Your task to perform on an android device: Go to Android settings Image 0: 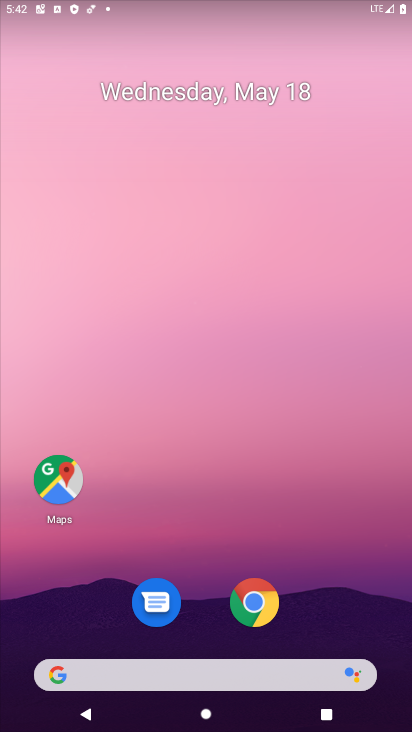
Step 0: drag from (229, 636) to (245, 54)
Your task to perform on an android device: Go to Android settings Image 1: 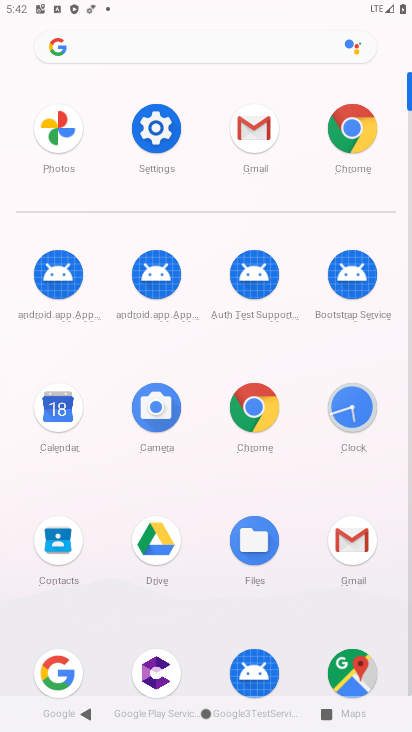
Step 1: click (167, 128)
Your task to perform on an android device: Go to Android settings Image 2: 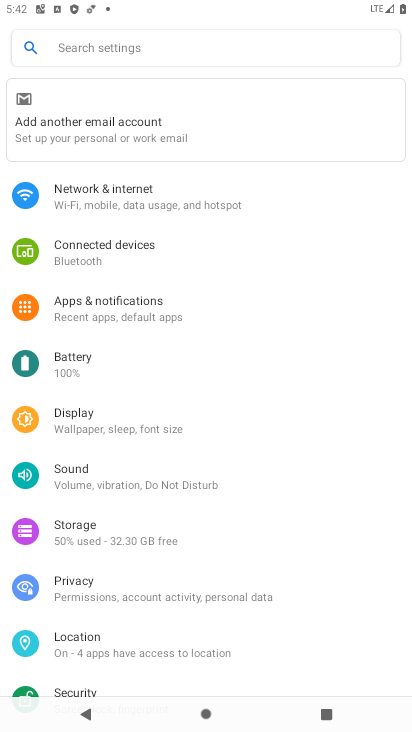
Step 2: drag from (153, 651) to (144, 198)
Your task to perform on an android device: Go to Android settings Image 3: 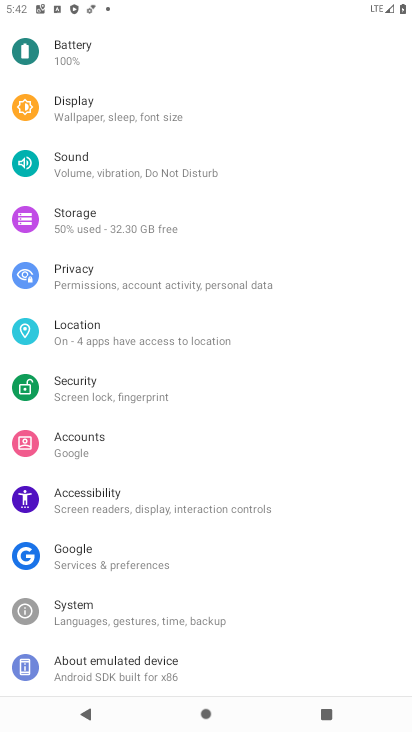
Step 3: click (143, 667)
Your task to perform on an android device: Go to Android settings Image 4: 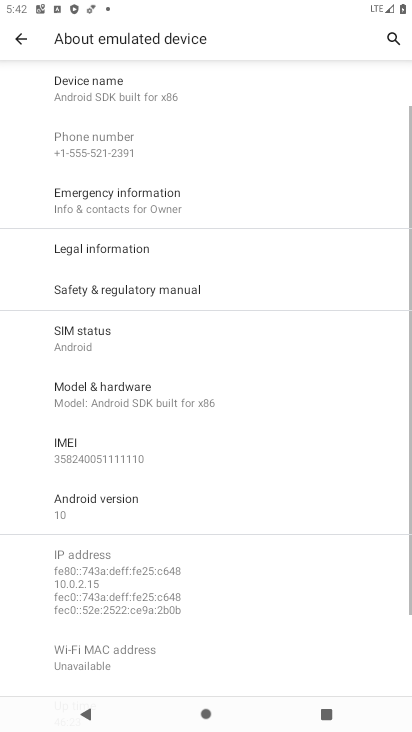
Step 4: click (102, 504)
Your task to perform on an android device: Go to Android settings Image 5: 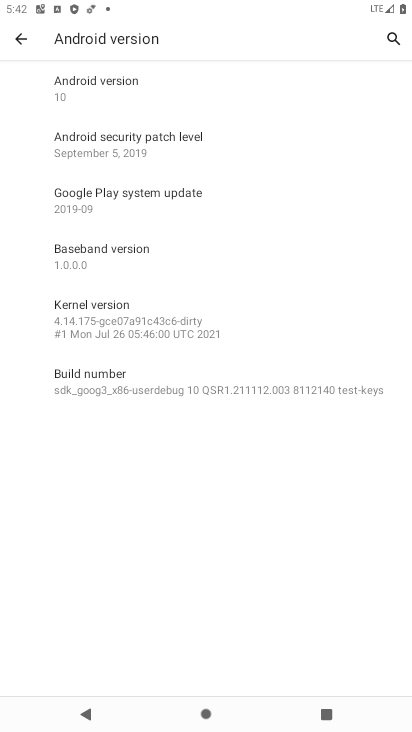
Step 5: task complete